Your task to perform on an android device: What is the recent news? Image 0: 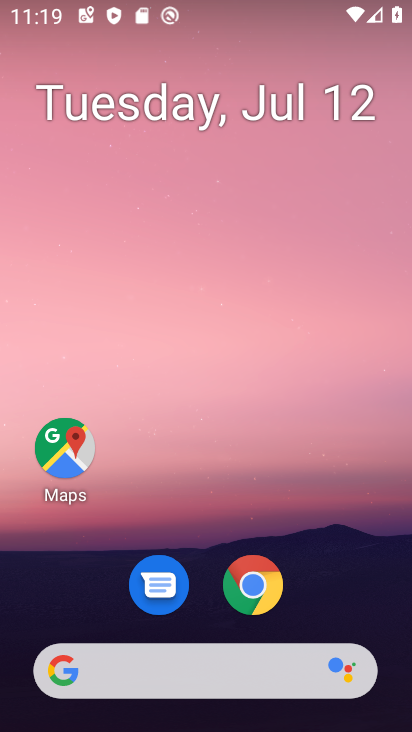
Step 0: drag from (322, 566) to (326, 478)
Your task to perform on an android device: What is the recent news? Image 1: 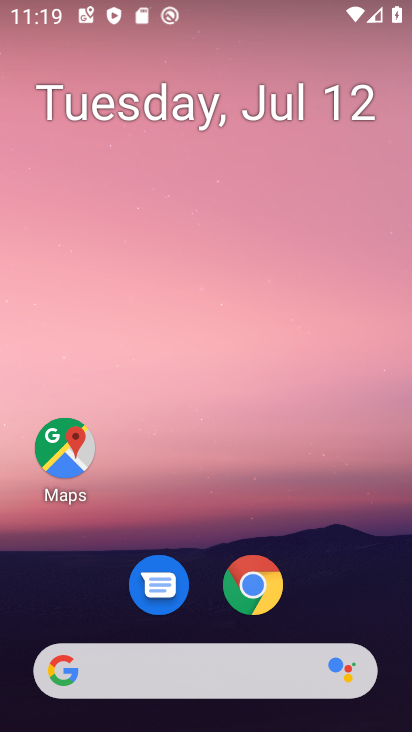
Step 1: click (224, 676)
Your task to perform on an android device: What is the recent news? Image 2: 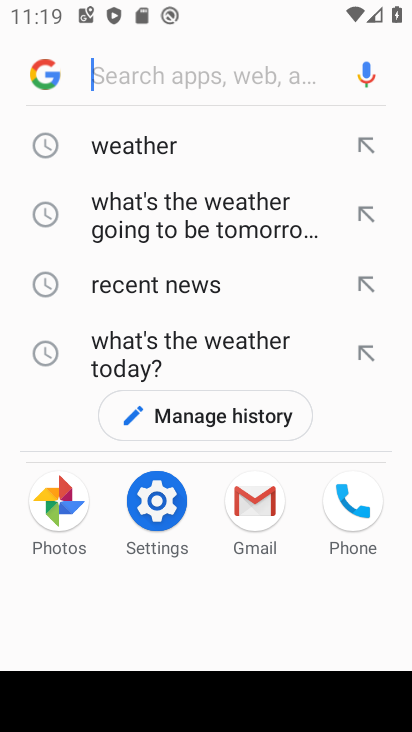
Step 2: click (55, 288)
Your task to perform on an android device: What is the recent news? Image 3: 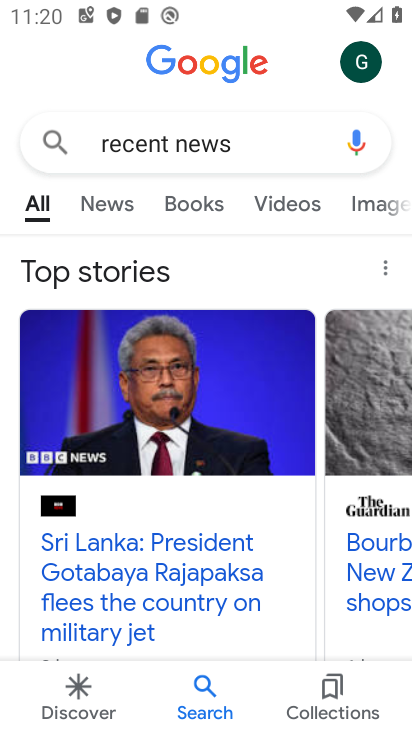
Step 3: task complete